Your task to perform on an android device: snooze an email in the gmail app Image 0: 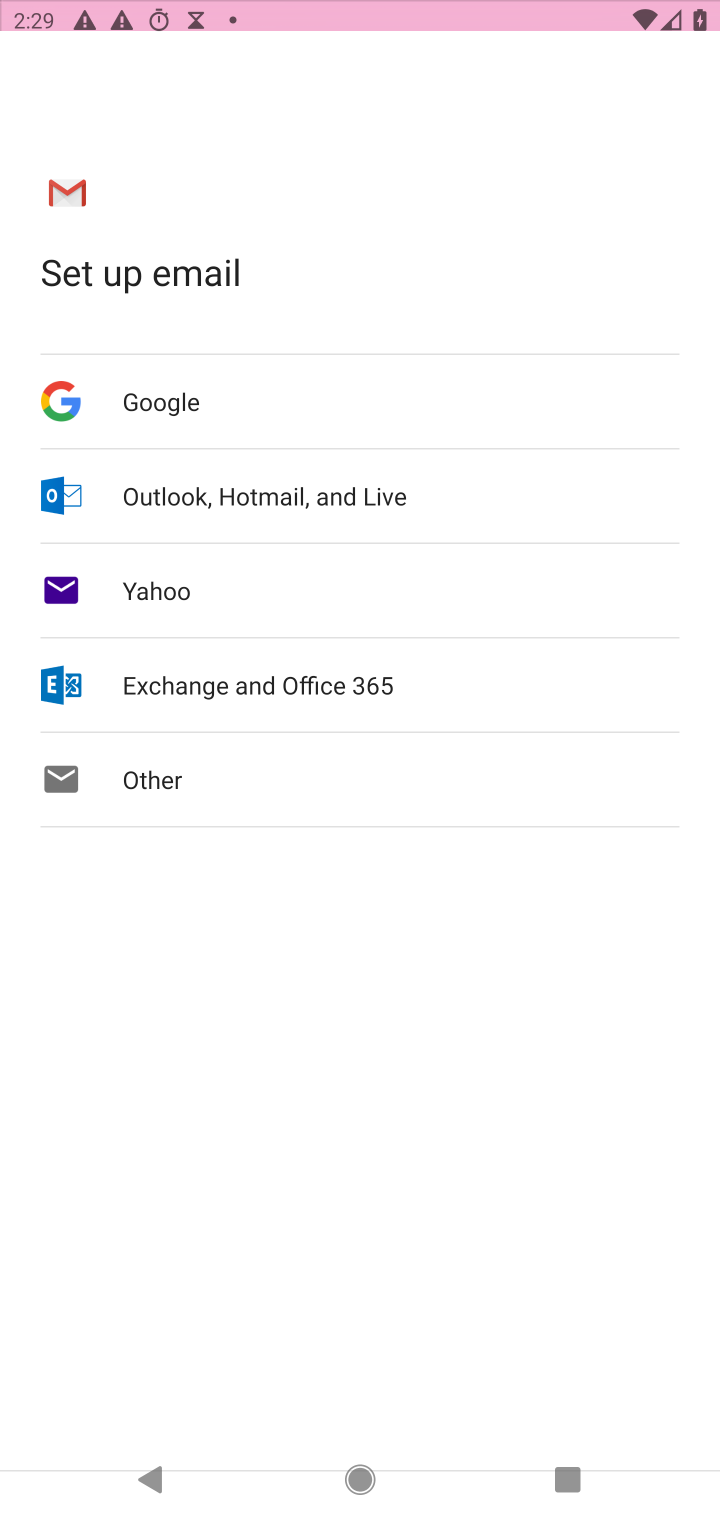
Step 0: press home button
Your task to perform on an android device: snooze an email in the gmail app Image 1: 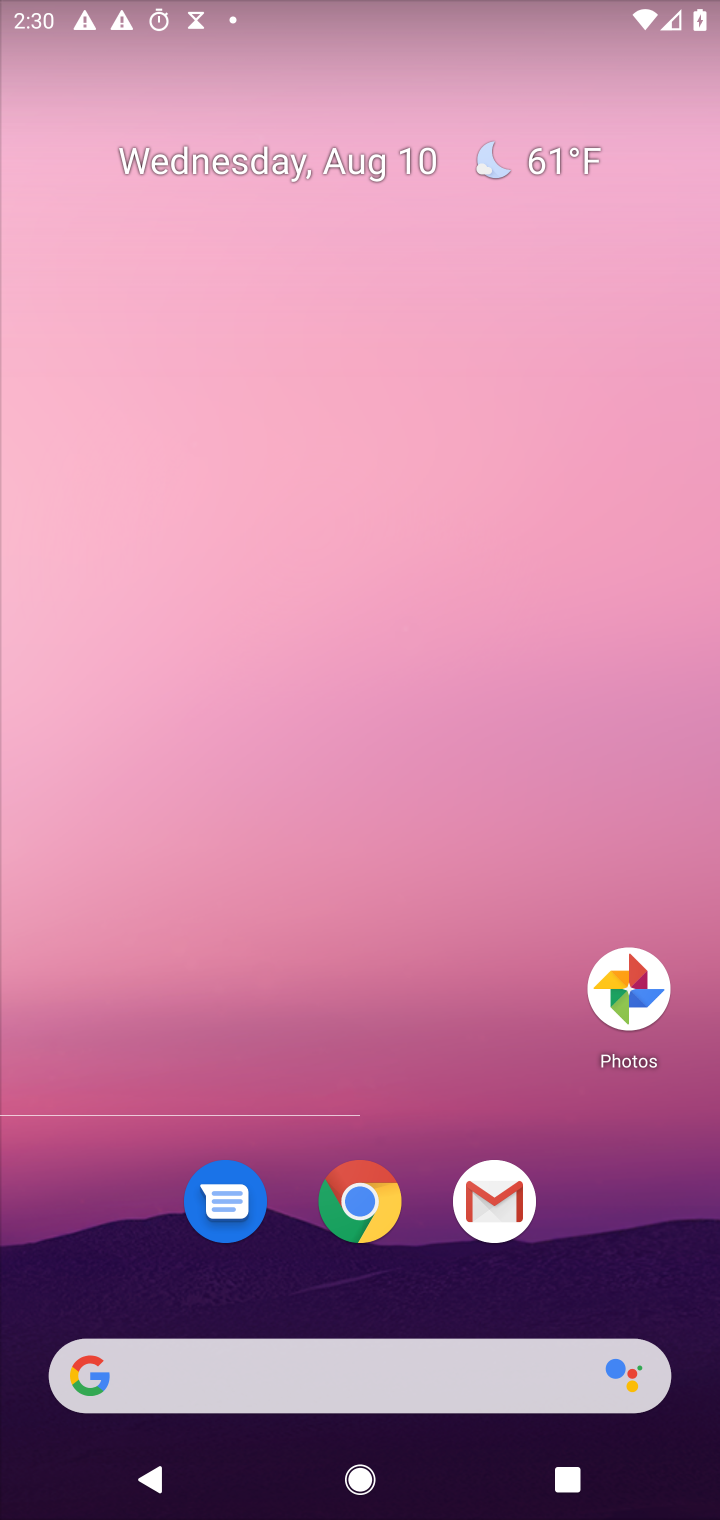
Step 1: click (475, 1204)
Your task to perform on an android device: snooze an email in the gmail app Image 2: 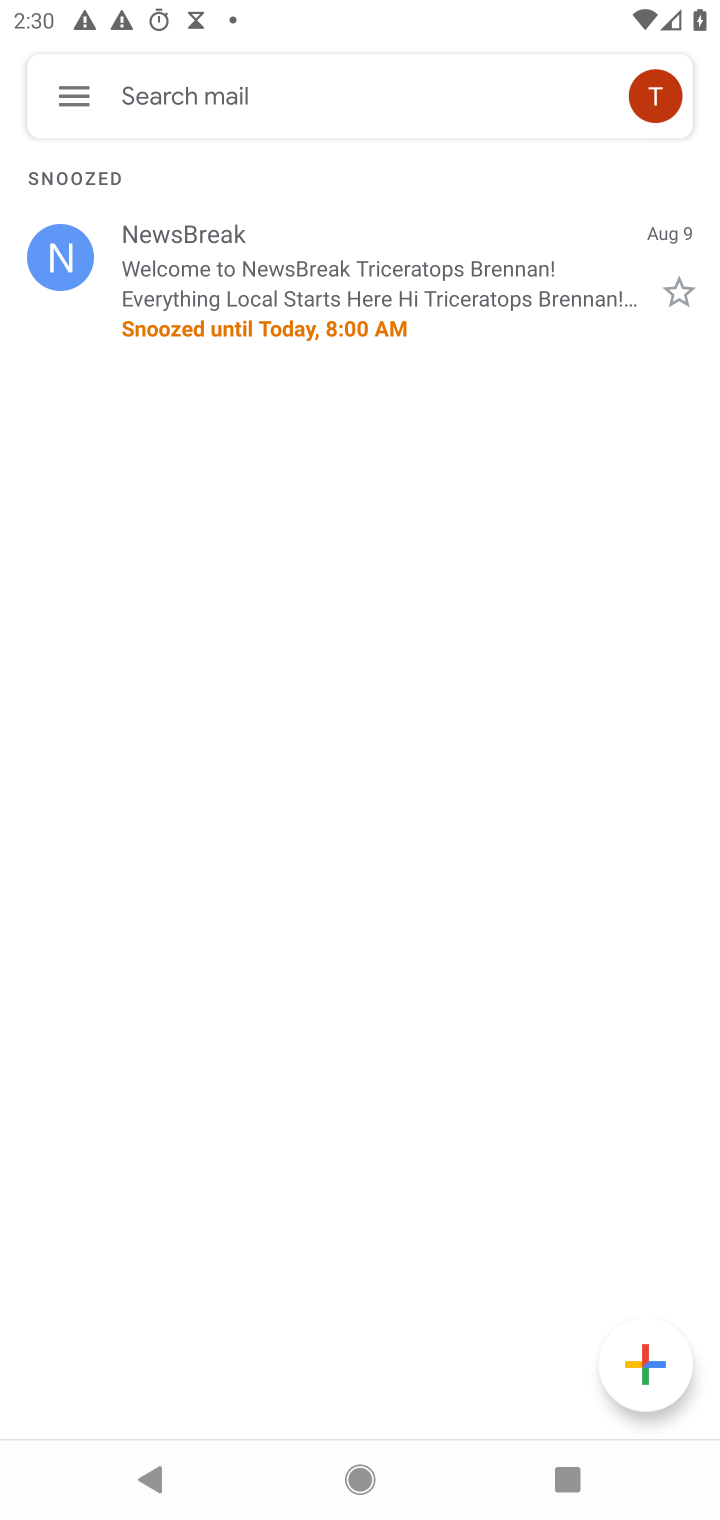
Step 2: click (70, 109)
Your task to perform on an android device: snooze an email in the gmail app Image 3: 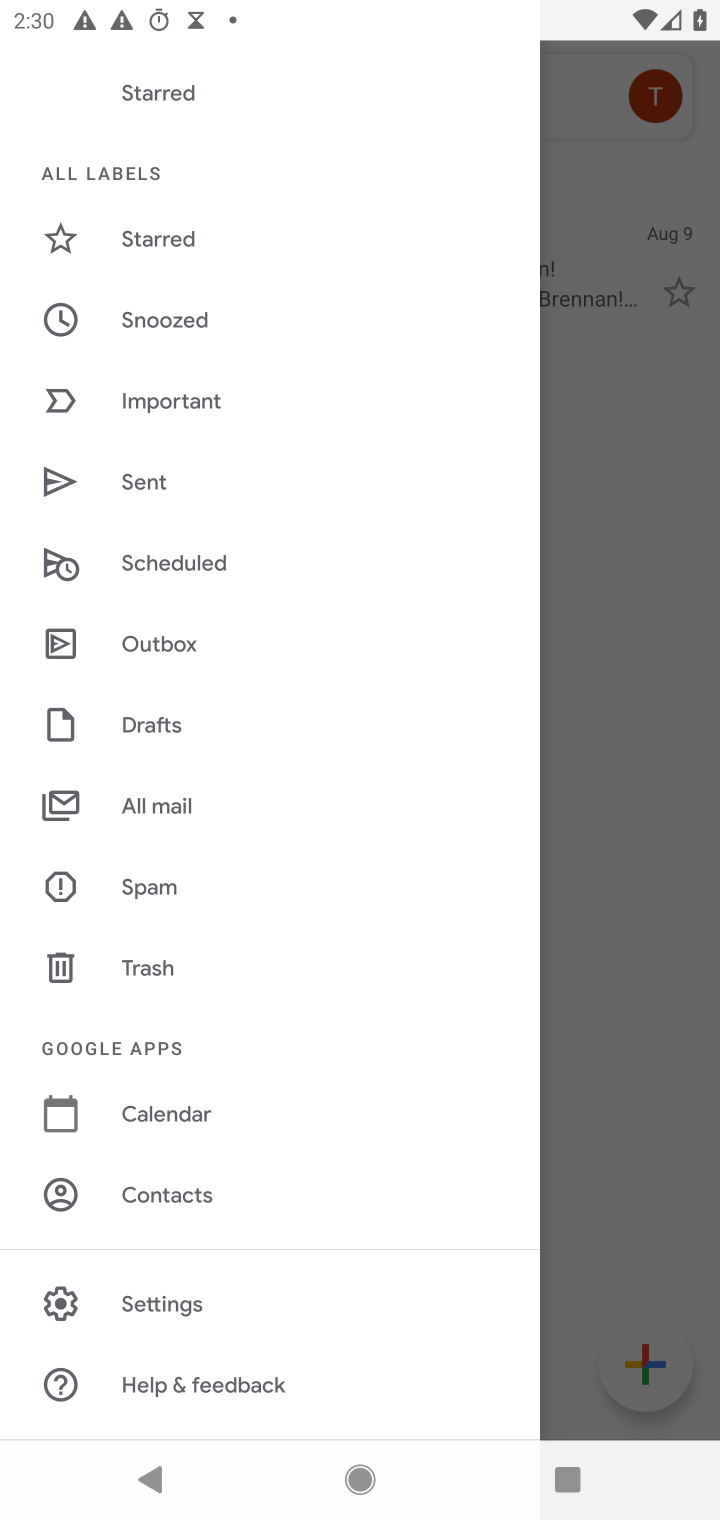
Step 3: drag from (406, 338) to (135, 963)
Your task to perform on an android device: snooze an email in the gmail app Image 4: 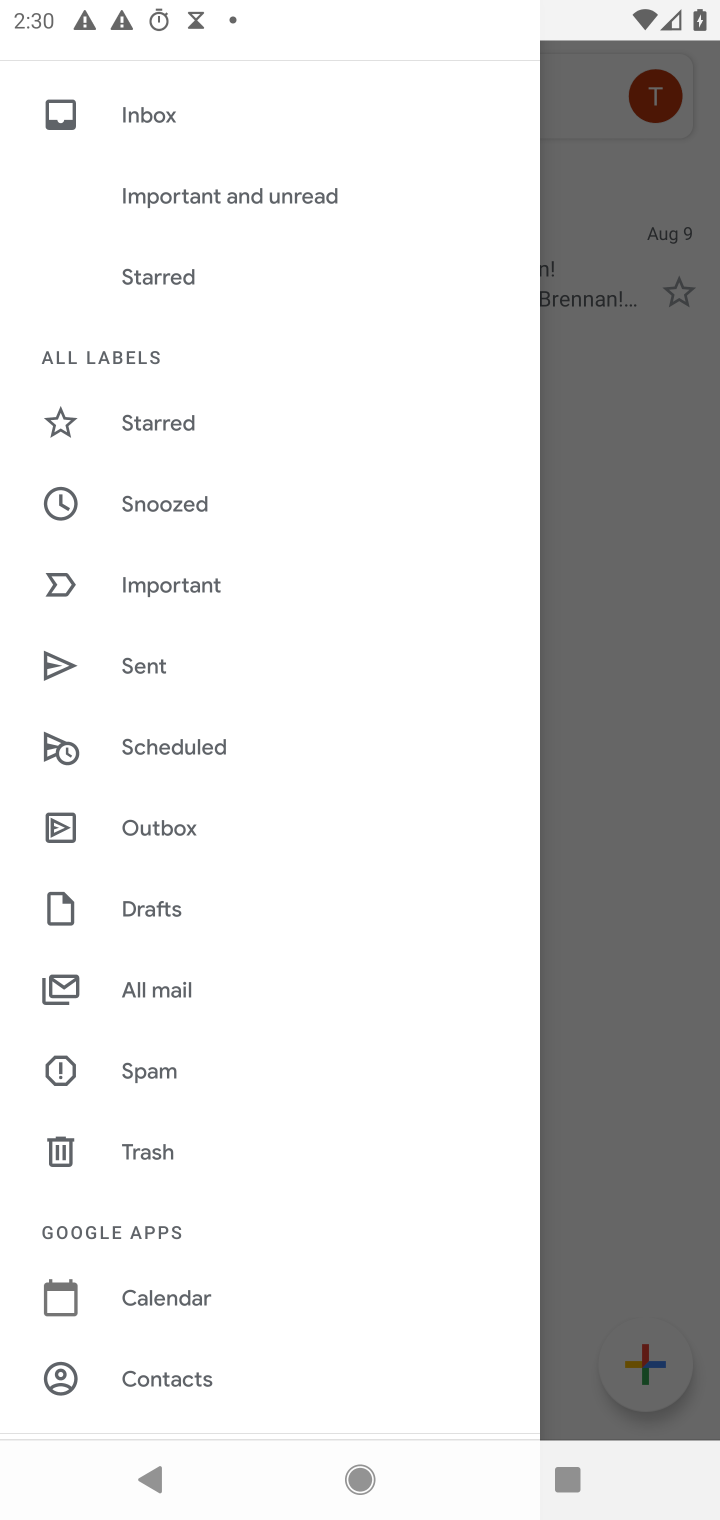
Step 4: click (120, 1004)
Your task to perform on an android device: snooze an email in the gmail app Image 5: 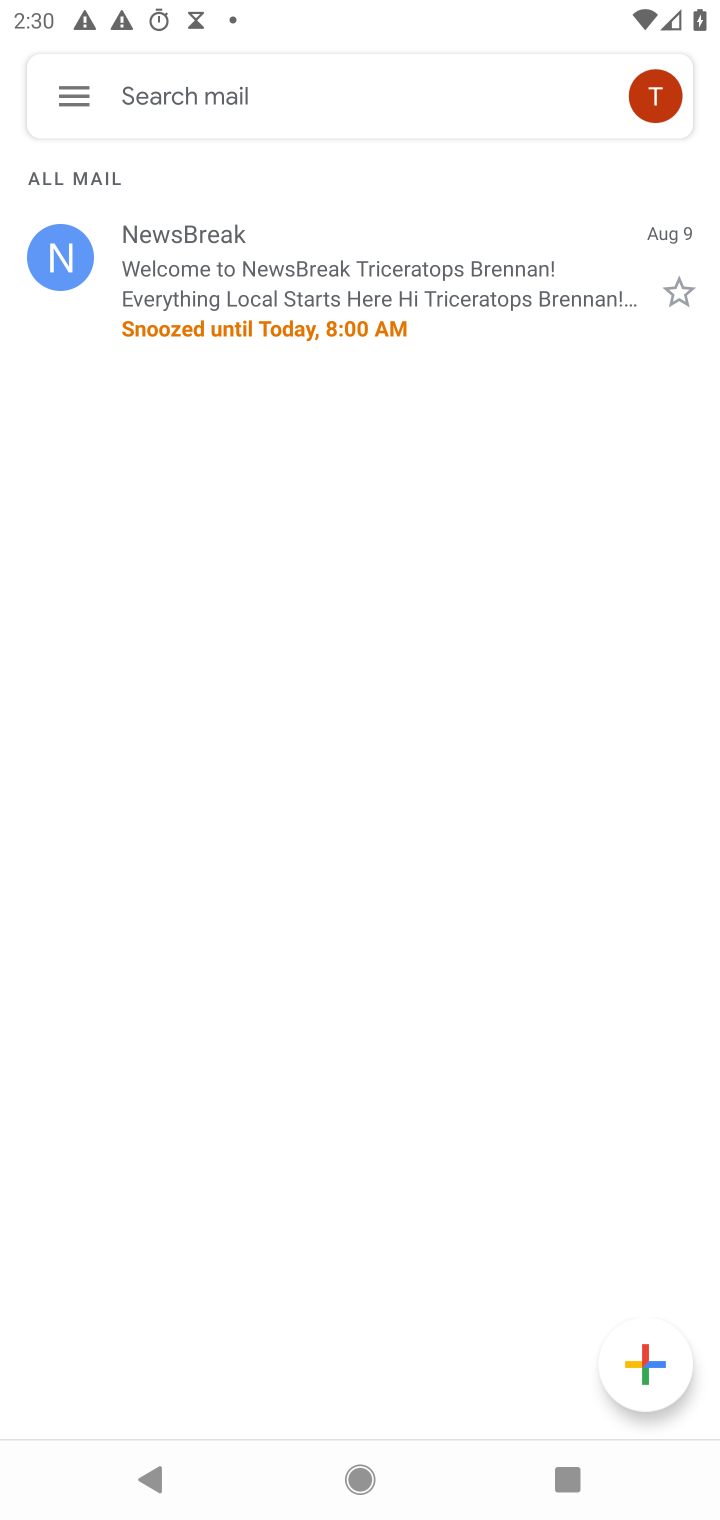
Step 5: task complete